Your task to perform on an android device: Open Amazon Image 0: 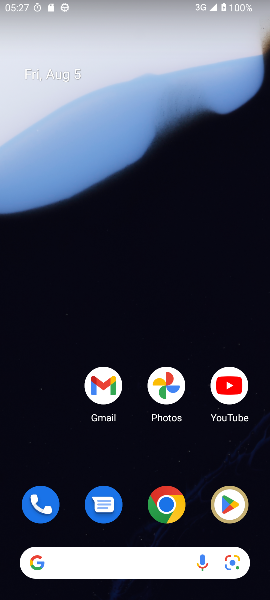
Step 0: click (82, 557)
Your task to perform on an android device: Open Amazon Image 1: 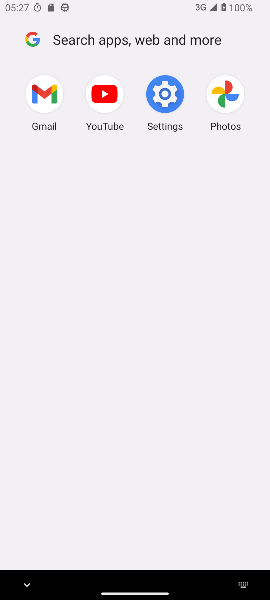
Step 1: type "Amazon"
Your task to perform on an android device: Open Amazon Image 2: 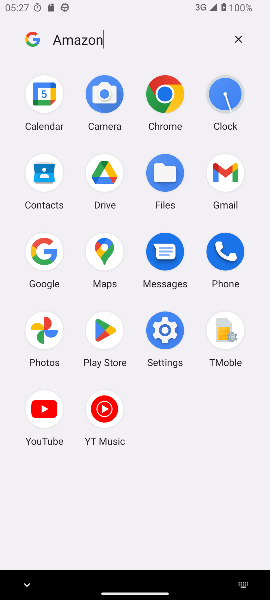
Step 2: type ""
Your task to perform on an android device: Open Amazon Image 3: 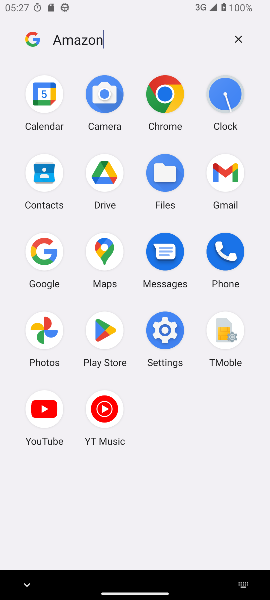
Step 3: type ""
Your task to perform on an android device: Open Amazon Image 4: 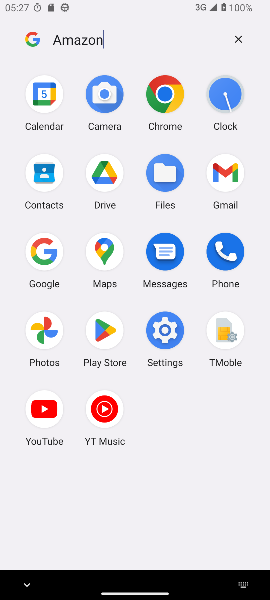
Step 4: type ""
Your task to perform on an android device: Open Amazon Image 5: 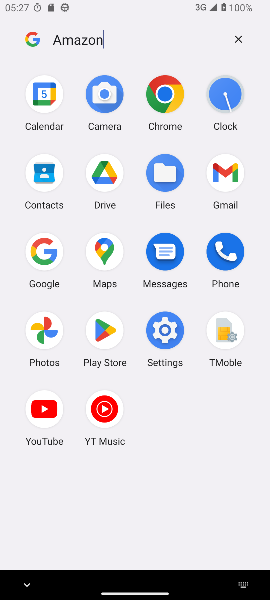
Step 5: task complete